Your task to perform on an android device: Open internet settings Image 0: 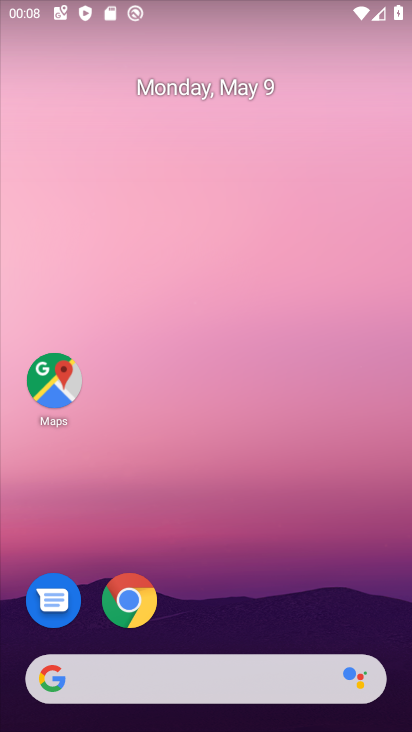
Step 0: drag from (219, 624) to (190, 99)
Your task to perform on an android device: Open internet settings Image 1: 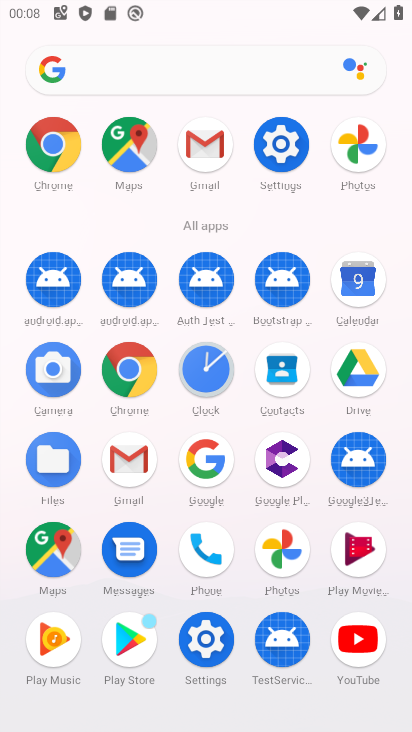
Step 1: click (288, 161)
Your task to perform on an android device: Open internet settings Image 2: 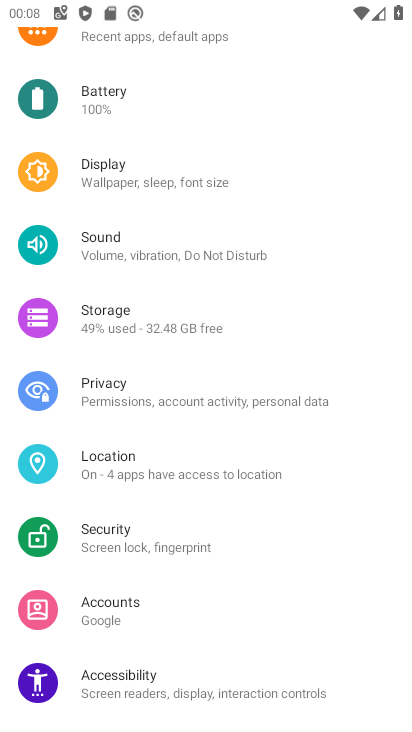
Step 2: drag from (247, 150) to (266, 610)
Your task to perform on an android device: Open internet settings Image 3: 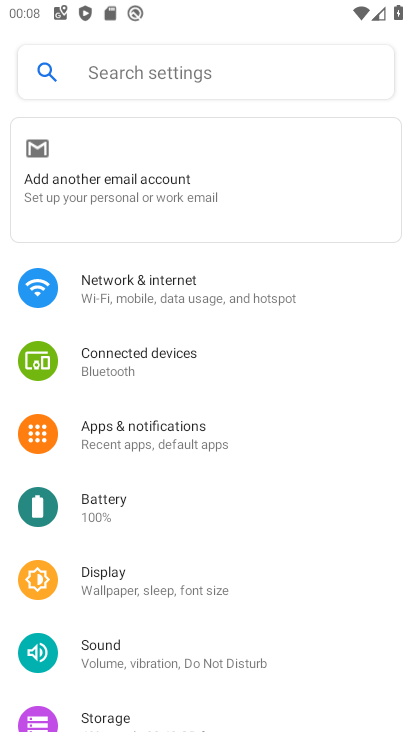
Step 3: click (233, 282)
Your task to perform on an android device: Open internet settings Image 4: 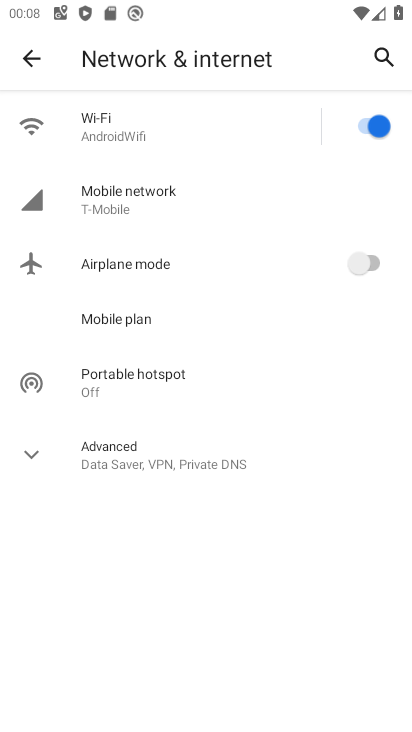
Step 4: task complete